Your task to perform on an android device: change the clock display to digital Image 0: 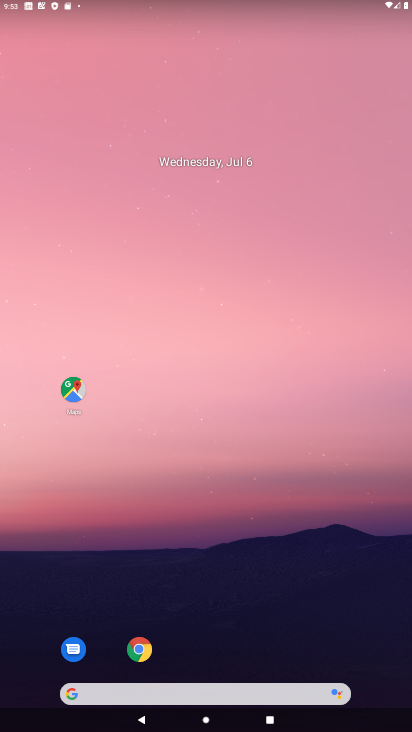
Step 0: drag from (208, 693) to (201, 96)
Your task to perform on an android device: change the clock display to digital Image 1: 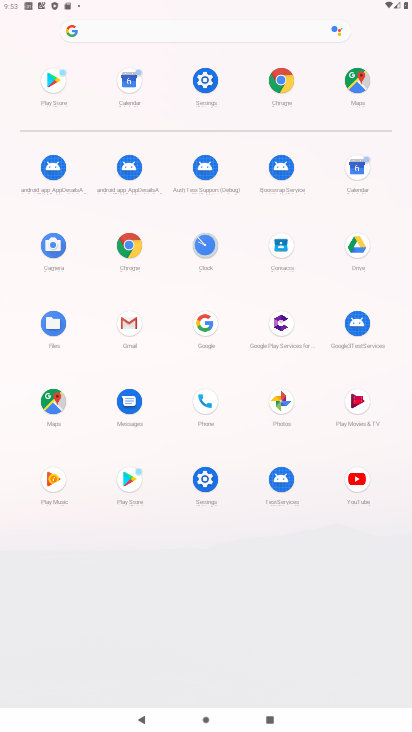
Step 1: click (202, 251)
Your task to perform on an android device: change the clock display to digital Image 2: 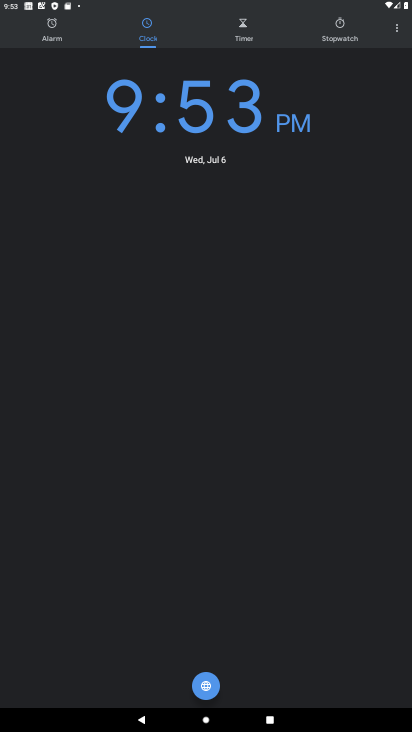
Step 2: click (396, 31)
Your task to perform on an android device: change the clock display to digital Image 3: 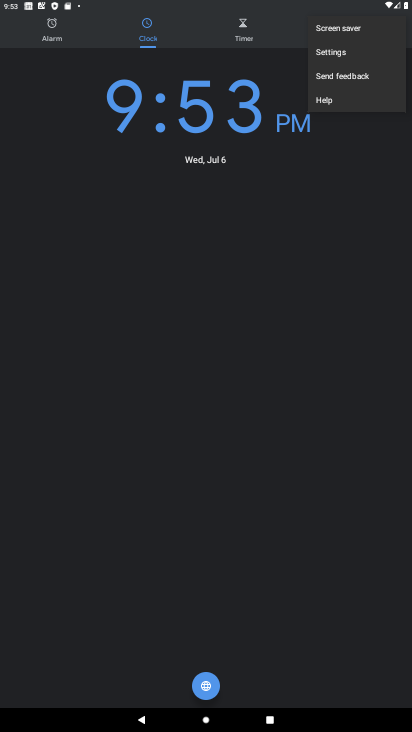
Step 3: click (327, 57)
Your task to perform on an android device: change the clock display to digital Image 4: 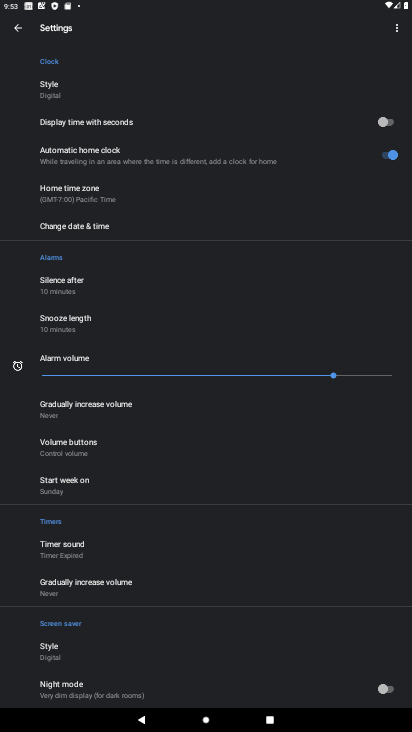
Step 4: click (67, 93)
Your task to perform on an android device: change the clock display to digital Image 5: 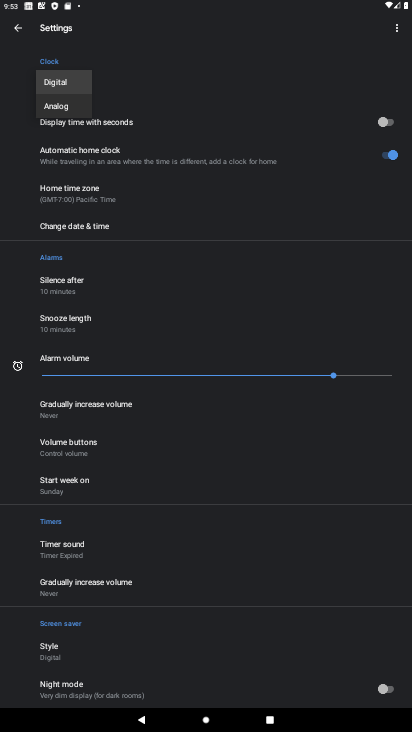
Step 5: click (67, 93)
Your task to perform on an android device: change the clock display to digital Image 6: 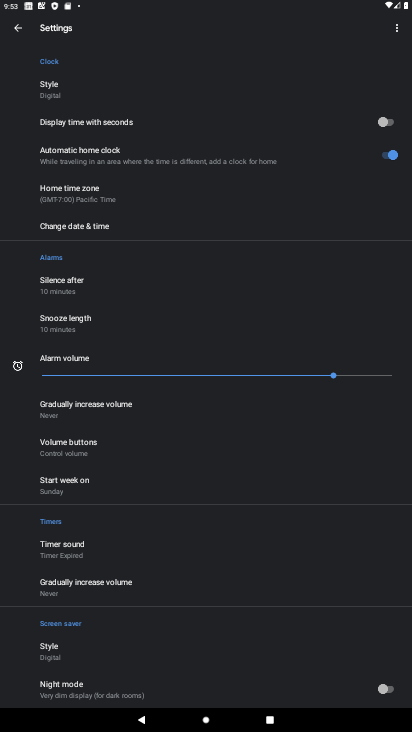
Step 6: task complete